Your task to perform on an android device: What's the weather today? Image 0: 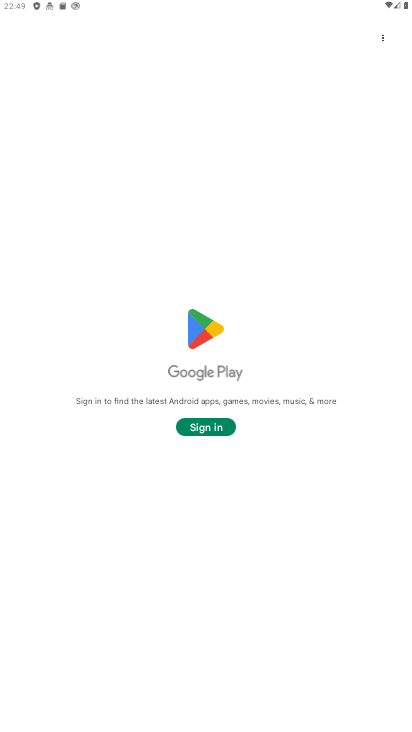
Step 0: press back button
Your task to perform on an android device: What's the weather today? Image 1: 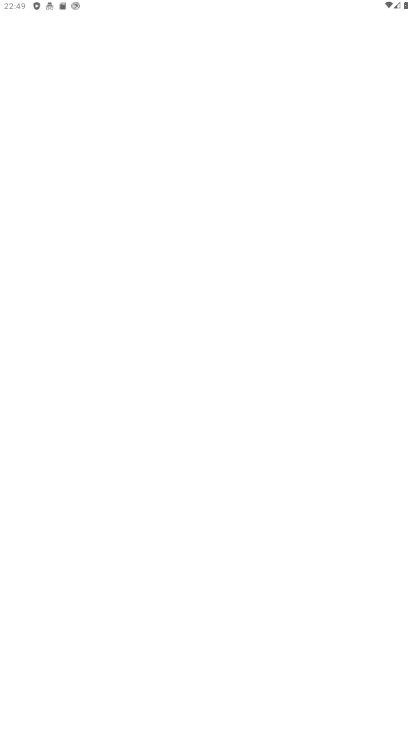
Step 1: press back button
Your task to perform on an android device: What's the weather today? Image 2: 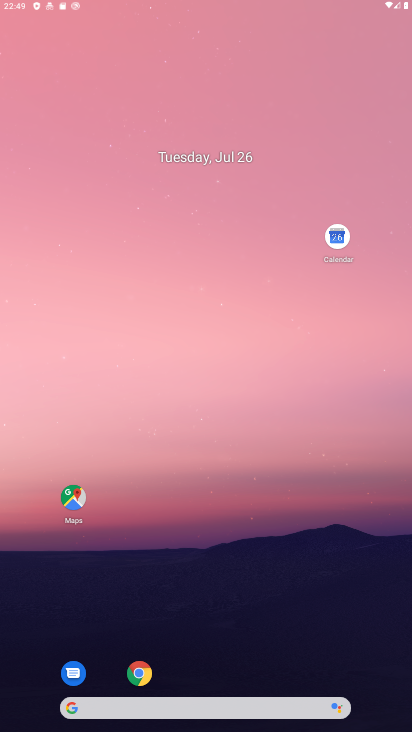
Step 2: press back button
Your task to perform on an android device: What's the weather today? Image 3: 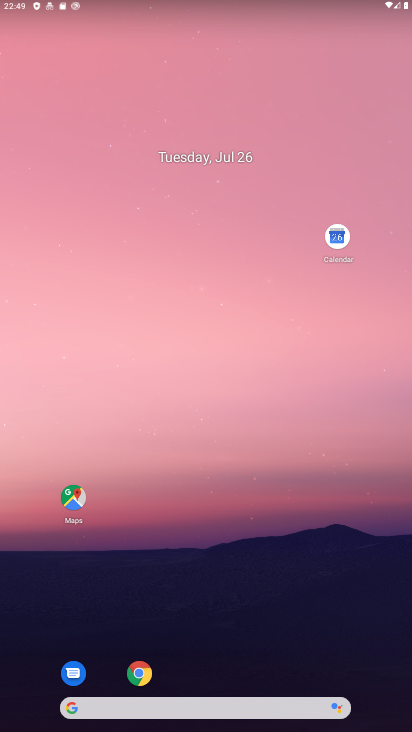
Step 3: press back button
Your task to perform on an android device: What's the weather today? Image 4: 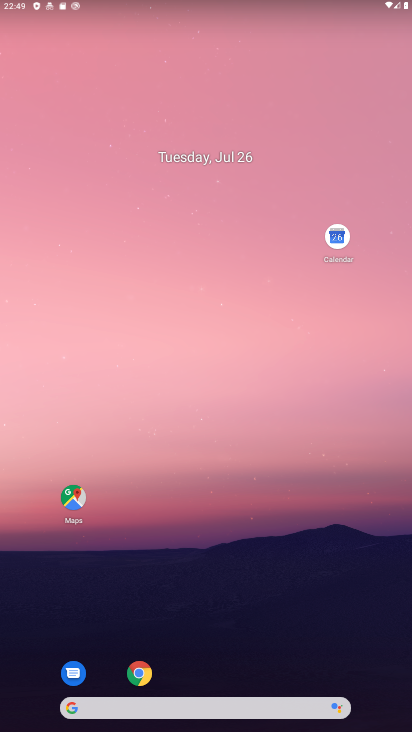
Step 4: drag from (264, 555) to (152, 228)
Your task to perform on an android device: What's the weather today? Image 5: 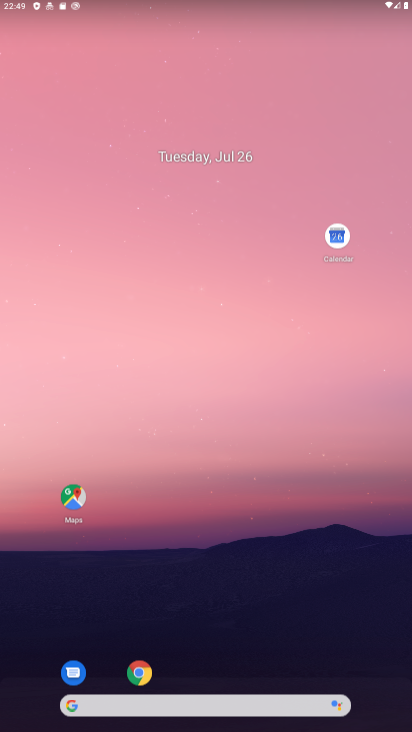
Step 5: drag from (230, 515) to (193, 254)
Your task to perform on an android device: What's the weather today? Image 6: 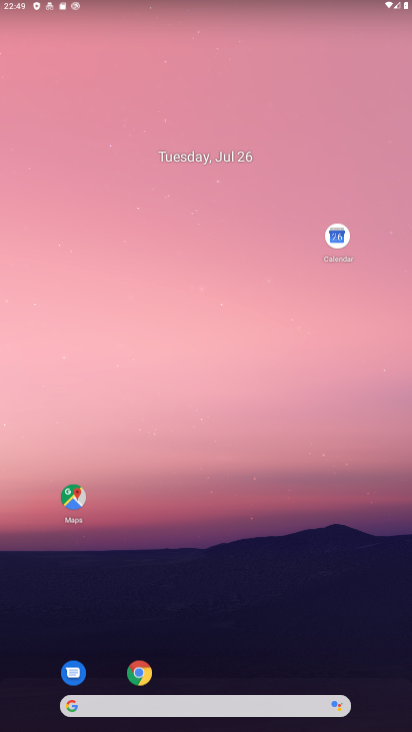
Step 6: drag from (296, 603) to (171, 129)
Your task to perform on an android device: What's the weather today? Image 7: 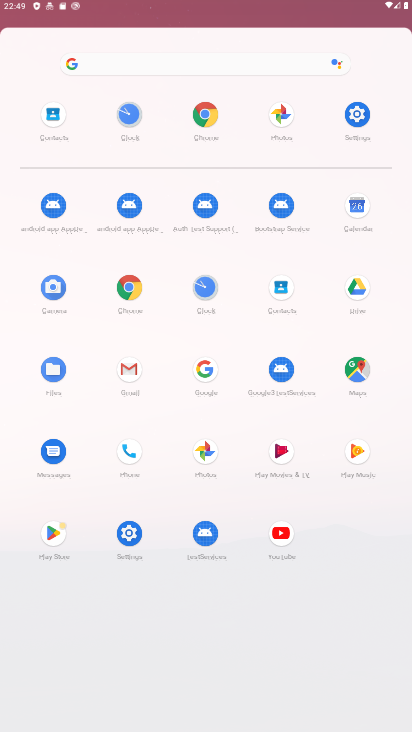
Step 7: drag from (220, 127) to (208, 30)
Your task to perform on an android device: What's the weather today? Image 8: 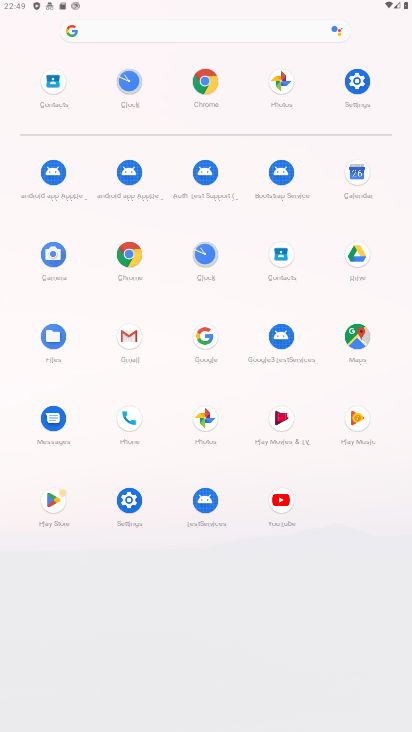
Step 8: drag from (235, 528) to (170, 4)
Your task to perform on an android device: What's the weather today? Image 9: 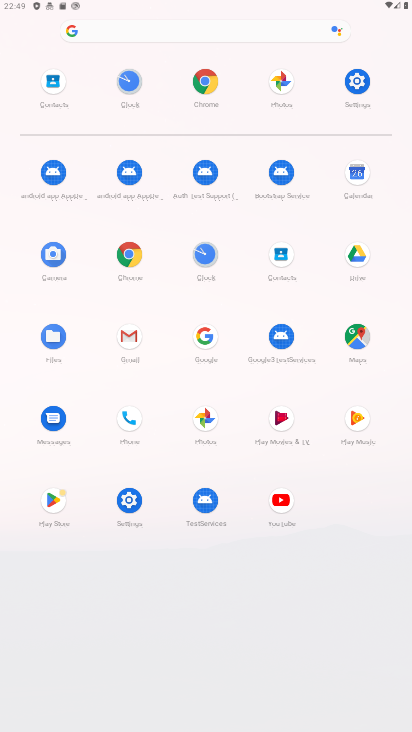
Step 9: click (197, 90)
Your task to perform on an android device: What's the weather today? Image 10: 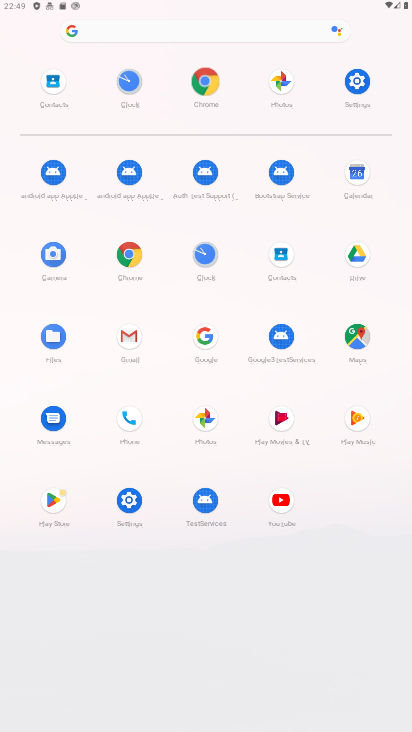
Step 10: click (202, 88)
Your task to perform on an android device: What's the weather today? Image 11: 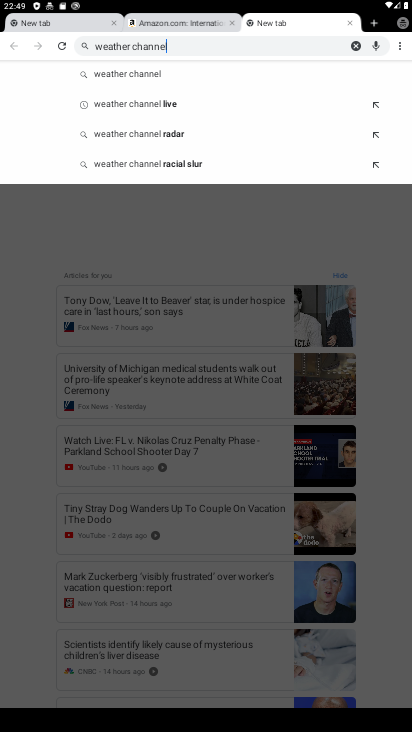
Step 11: click (173, 38)
Your task to perform on an android device: What's the weather today? Image 12: 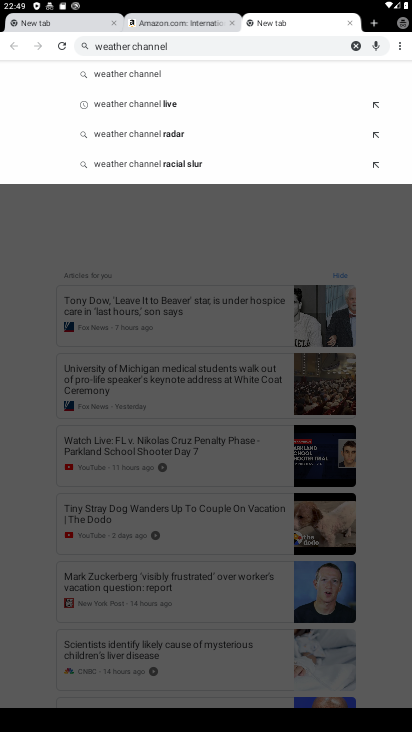
Step 12: click (170, 43)
Your task to perform on an android device: What's the weather today? Image 13: 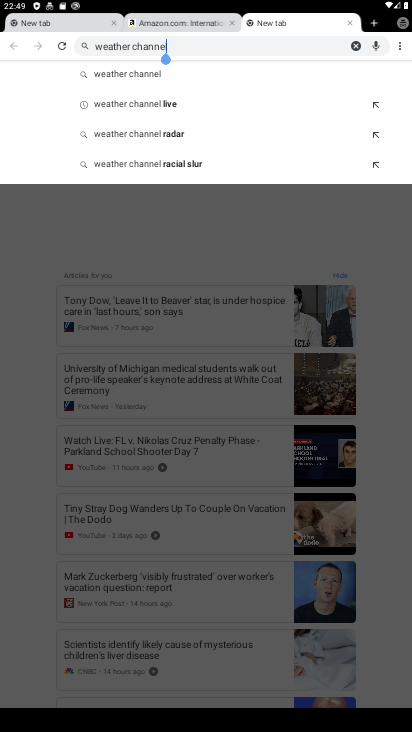
Step 13: click (170, 43)
Your task to perform on an android device: What's the weather today? Image 14: 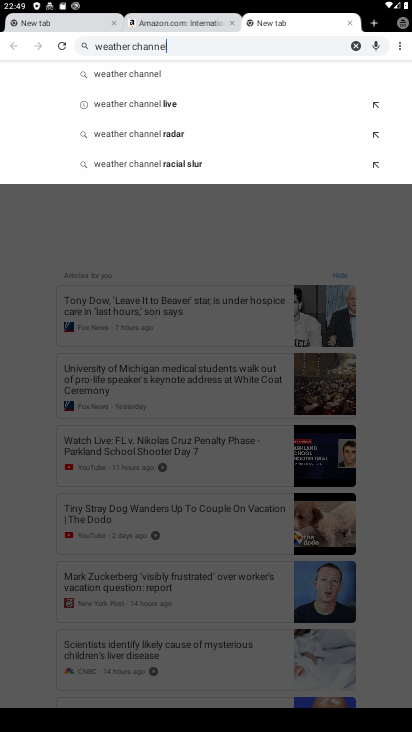
Step 14: click (350, 21)
Your task to perform on an android device: What's the weather today? Image 15: 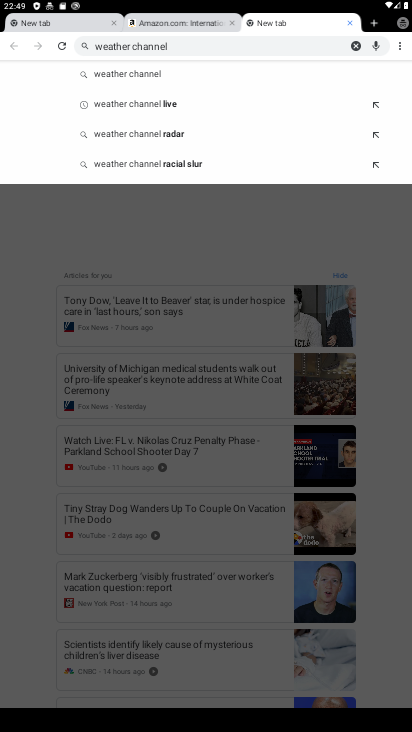
Step 15: click (350, 21)
Your task to perform on an android device: What's the weather today? Image 16: 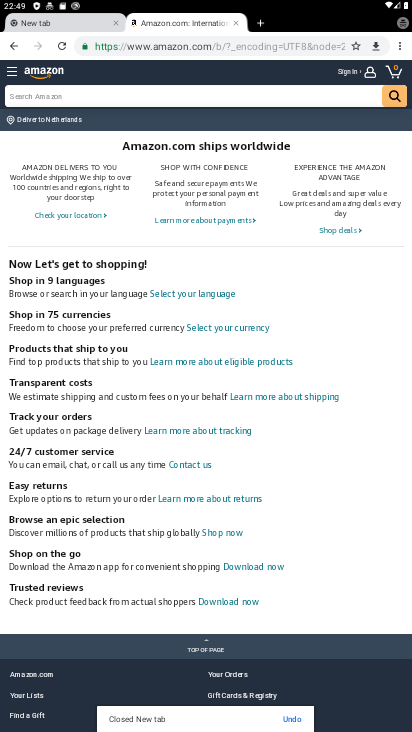
Step 16: click (351, 20)
Your task to perform on an android device: What's the weather today? Image 17: 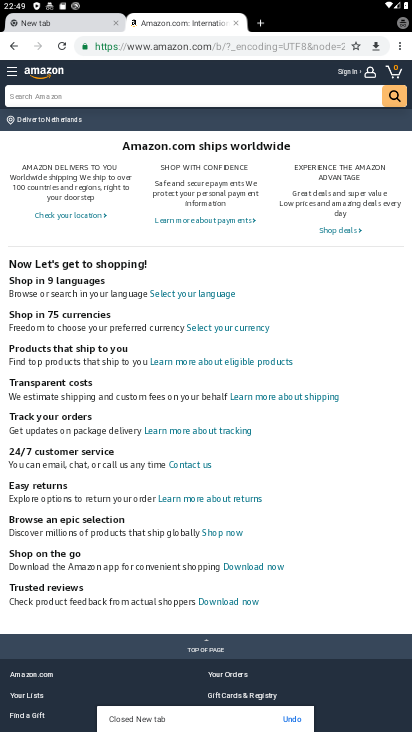
Step 17: click (235, 17)
Your task to perform on an android device: What's the weather today? Image 18: 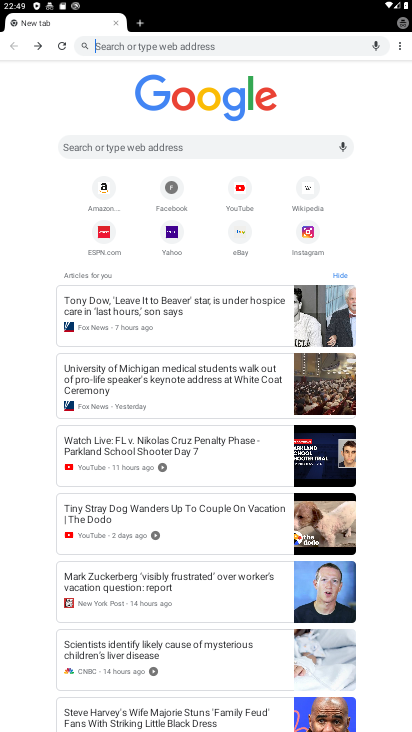
Step 18: type "weather?"
Your task to perform on an android device: What's the weather today? Image 19: 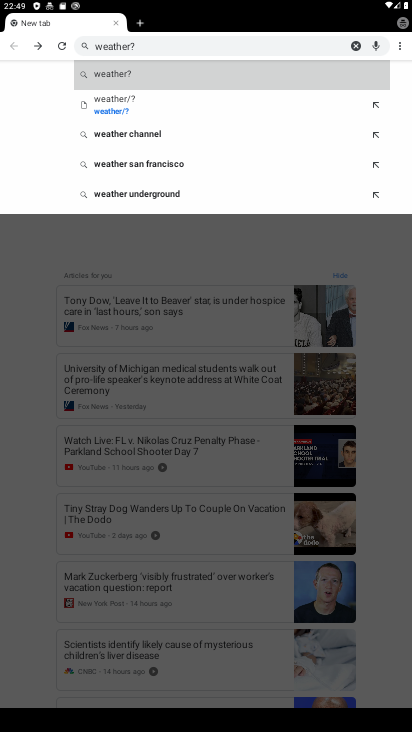
Step 19: click (120, 60)
Your task to perform on an android device: What's the weather today? Image 20: 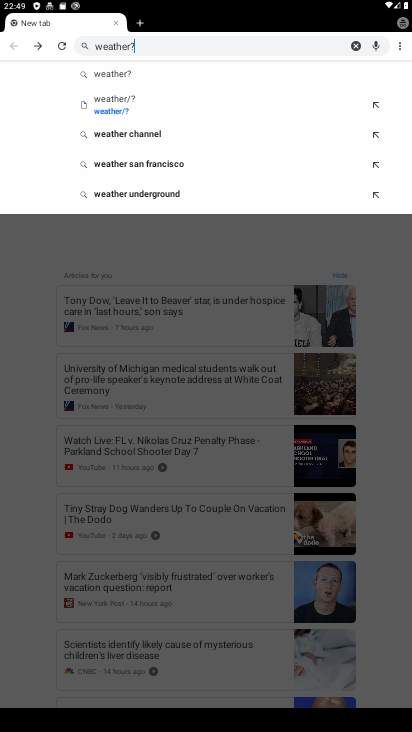
Step 20: click (120, 60)
Your task to perform on an android device: What's the weather today? Image 21: 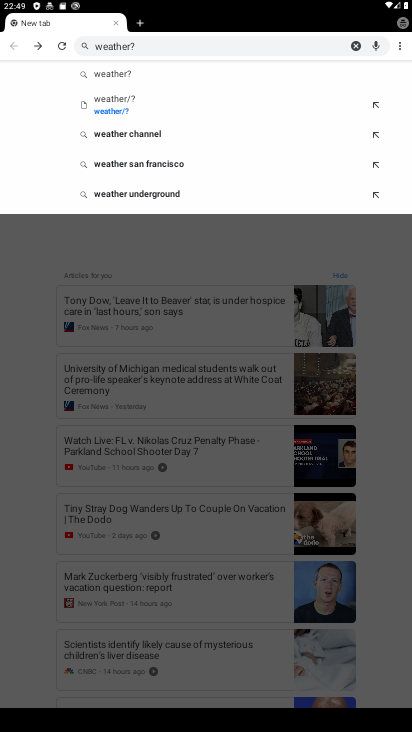
Step 21: click (119, 60)
Your task to perform on an android device: What's the weather today? Image 22: 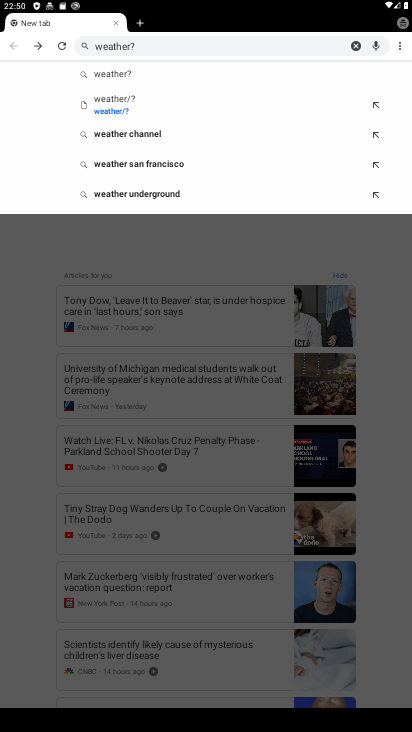
Step 22: click (112, 69)
Your task to perform on an android device: What's the weather today? Image 23: 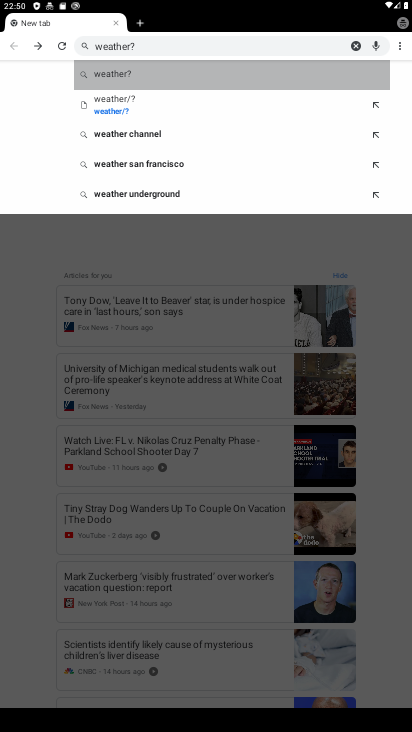
Step 23: click (115, 72)
Your task to perform on an android device: What's the weather today? Image 24: 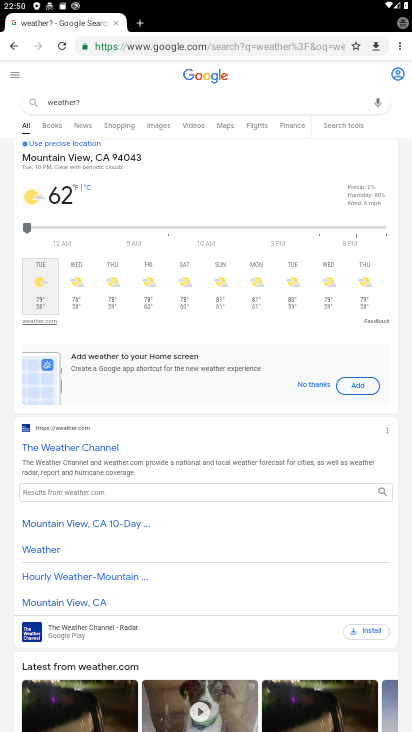
Step 24: task complete